Your task to perform on an android device: Open Google Chrome and click the shortcut for Amazon.com Image 0: 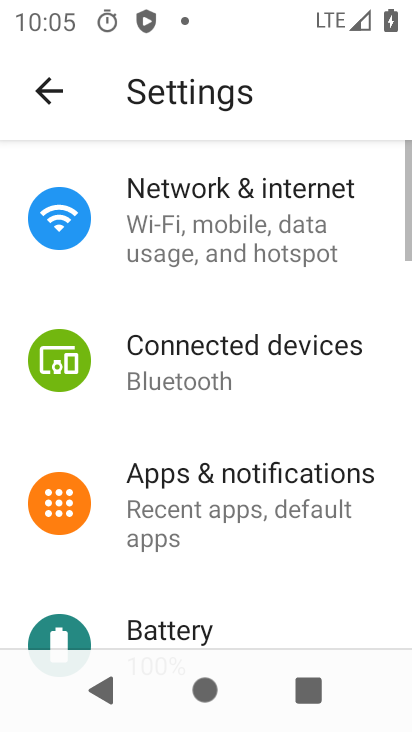
Step 0: press home button
Your task to perform on an android device: Open Google Chrome and click the shortcut for Amazon.com Image 1: 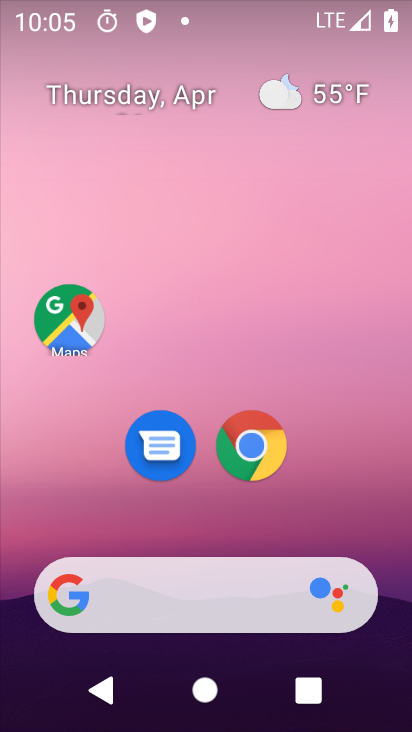
Step 1: click (256, 445)
Your task to perform on an android device: Open Google Chrome and click the shortcut for Amazon.com Image 2: 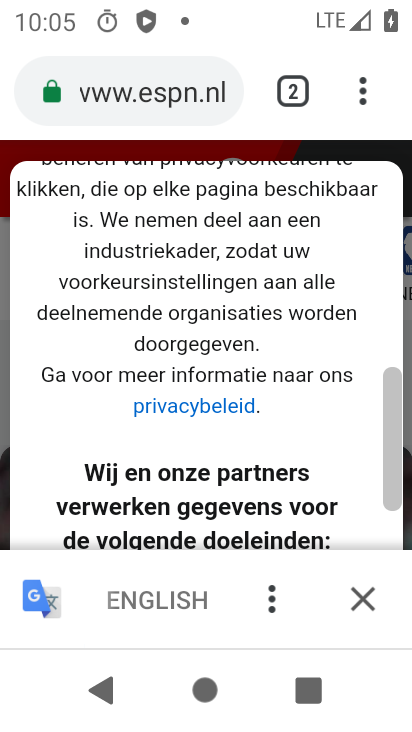
Step 2: click (364, 93)
Your task to perform on an android device: Open Google Chrome and click the shortcut for Amazon.com Image 3: 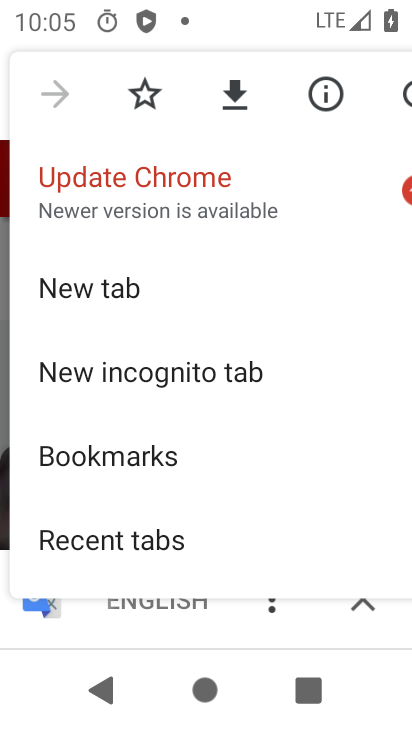
Step 3: click (63, 278)
Your task to perform on an android device: Open Google Chrome and click the shortcut for Amazon.com Image 4: 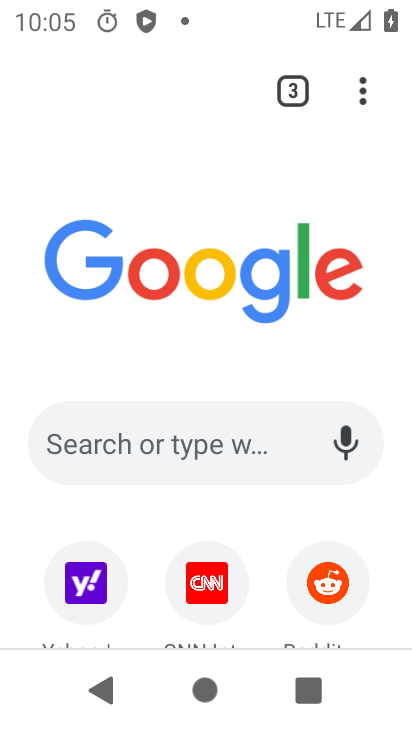
Step 4: drag from (205, 483) to (180, 198)
Your task to perform on an android device: Open Google Chrome and click the shortcut for Amazon.com Image 5: 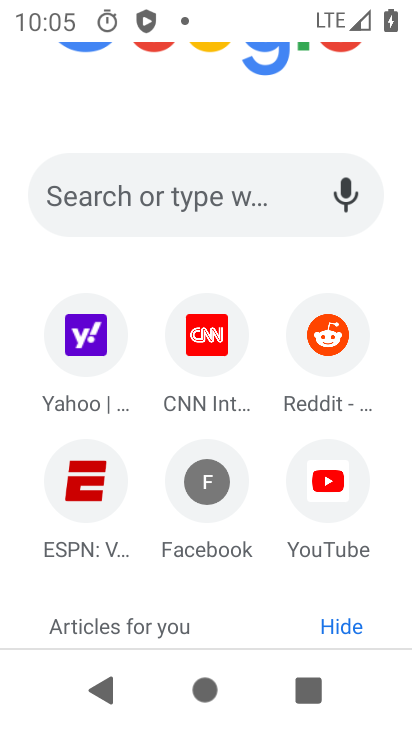
Step 5: drag from (261, 554) to (1, 542)
Your task to perform on an android device: Open Google Chrome and click the shortcut for Amazon.com Image 6: 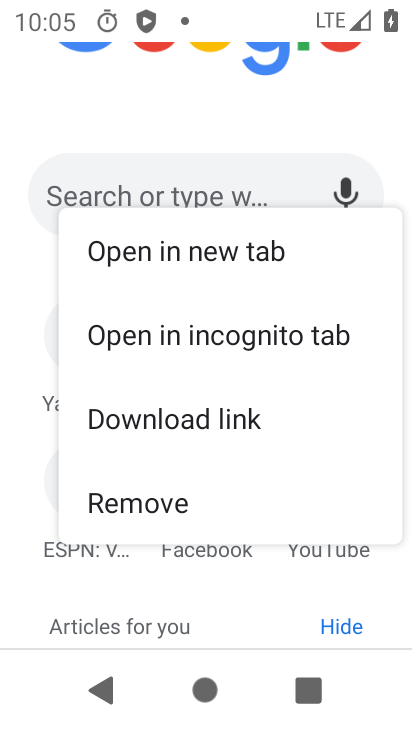
Step 6: click (95, 122)
Your task to perform on an android device: Open Google Chrome and click the shortcut for Amazon.com Image 7: 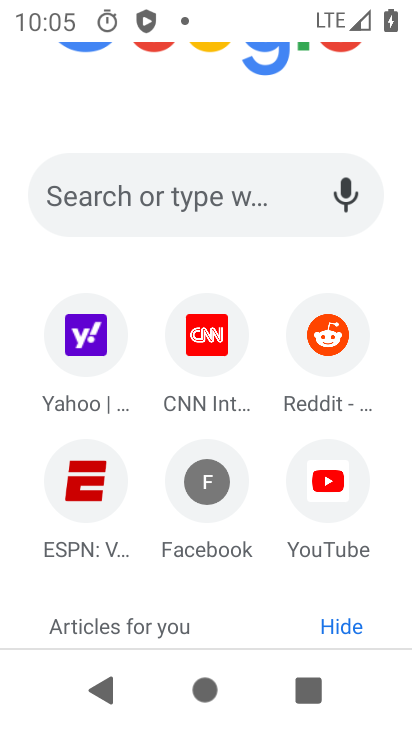
Step 7: drag from (136, 495) to (132, 193)
Your task to perform on an android device: Open Google Chrome and click the shortcut for Amazon.com Image 8: 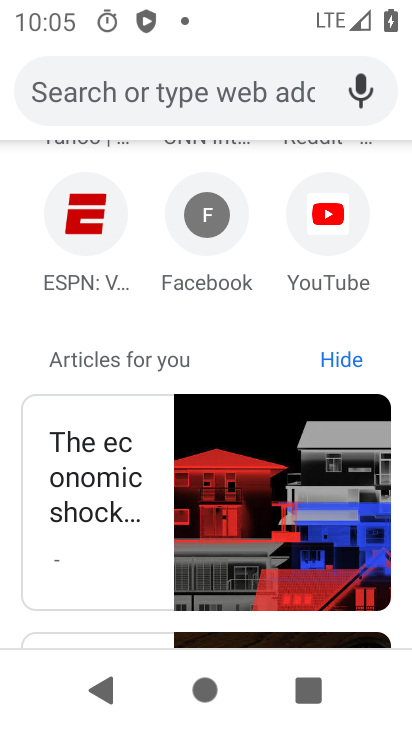
Step 8: drag from (165, 324) to (174, 539)
Your task to perform on an android device: Open Google Chrome and click the shortcut for Amazon.com Image 9: 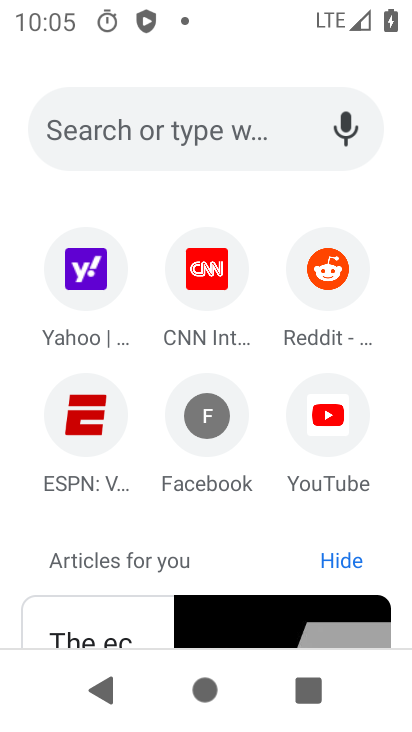
Step 9: drag from (374, 366) to (41, 382)
Your task to perform on an android device: Open Google Chrome and click the shortcut for Amazon.com Image 10: 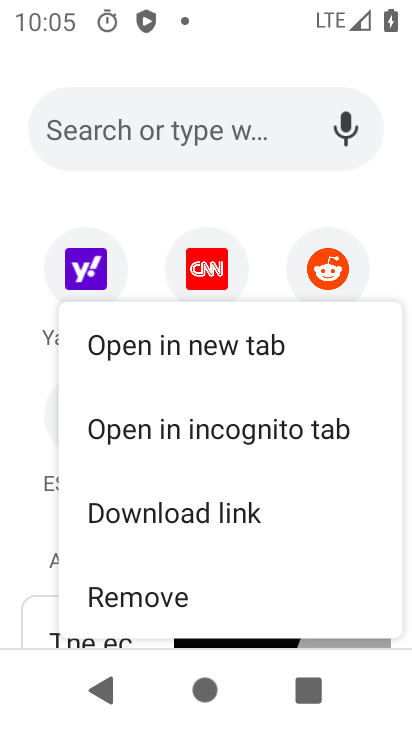
Step 10: click (111, 211)
Your task to perform on an android device: Open Google Chrome and click the shortcut for Amazon.com Image 11: 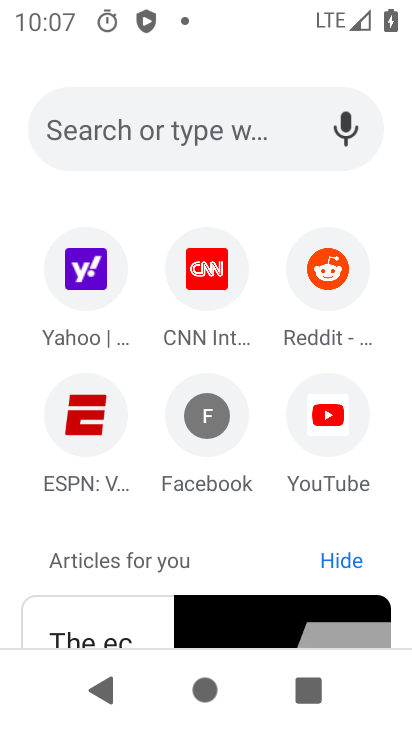
Step 11: task complete